Your task to perform on an android device: Open accessibility settings Image 0: 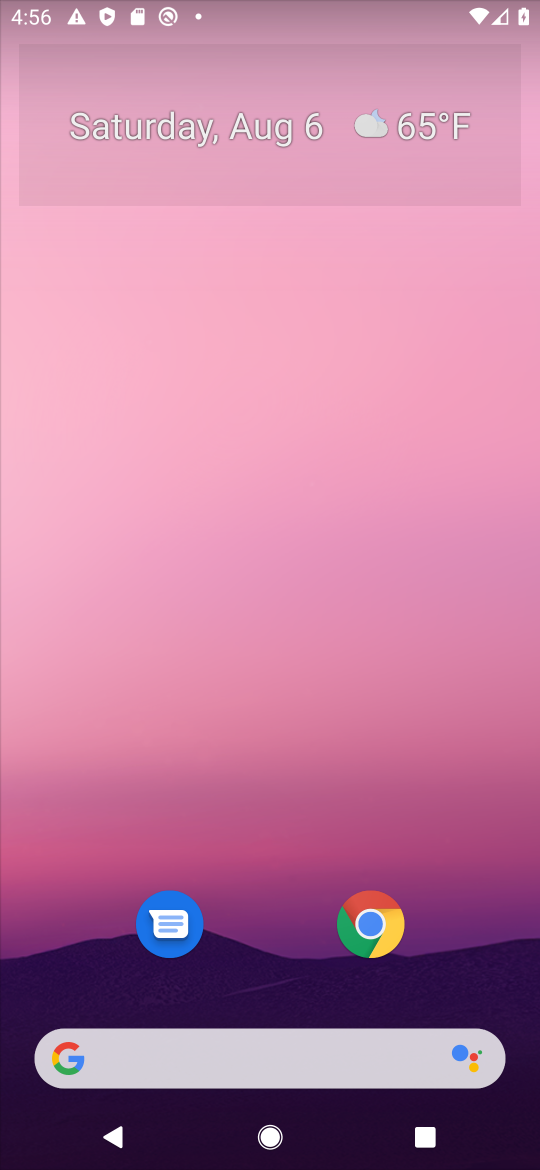
Step 0: drag from (151, 1119) to (389, 66)
Your task to perform on an android device: Open accessibility settings Image 1: 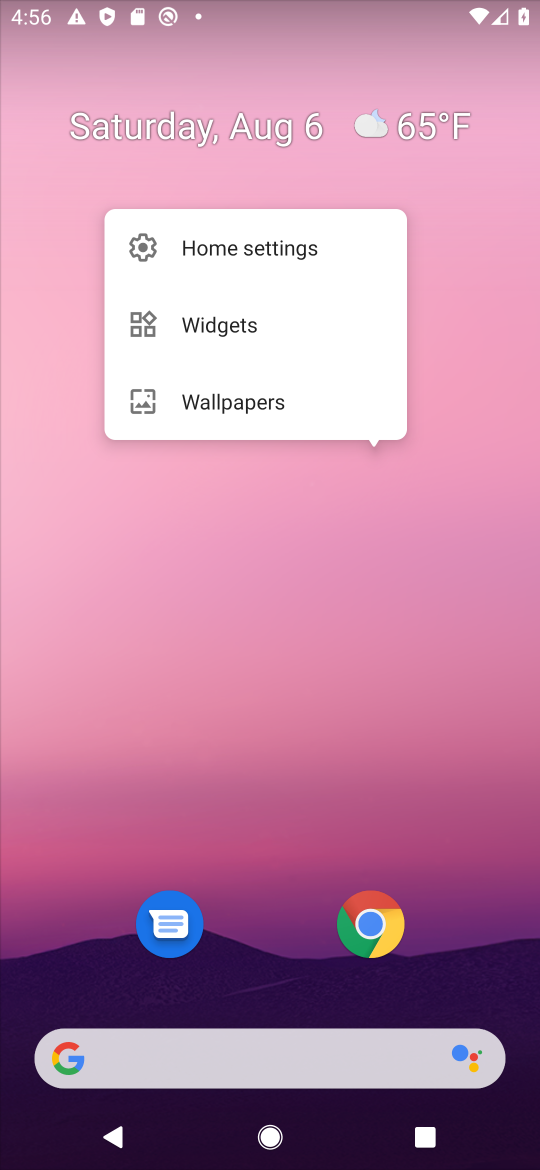
Step 1: drag from (351, 1131) to (405, 297)
Your task to perform on an android device: Open accessibility settings Image 2: 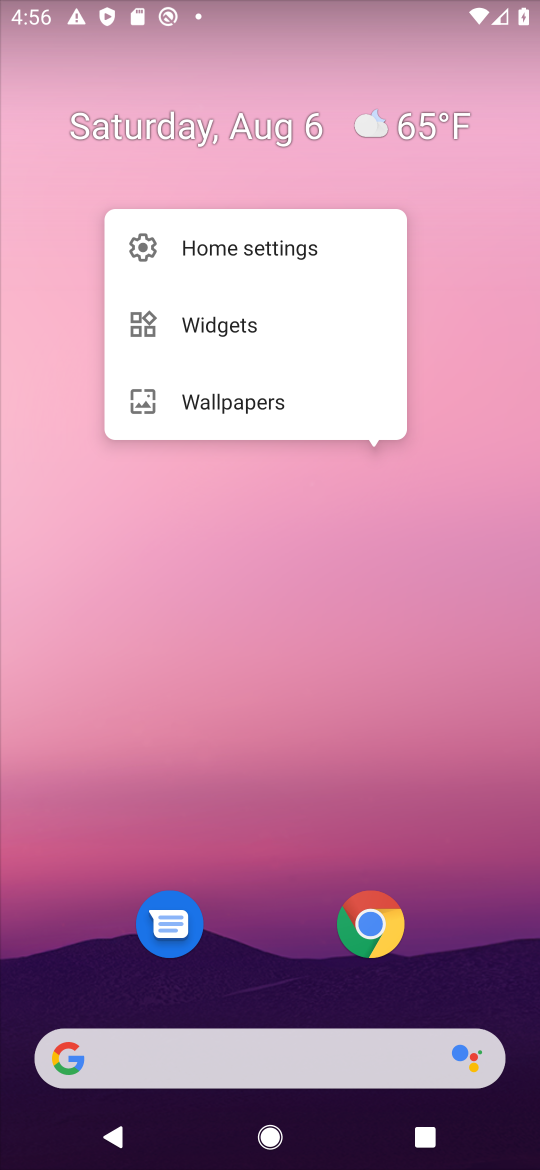
Step 2: press home button
Your task to perform on an android device: Open accessibility settings Image 3: 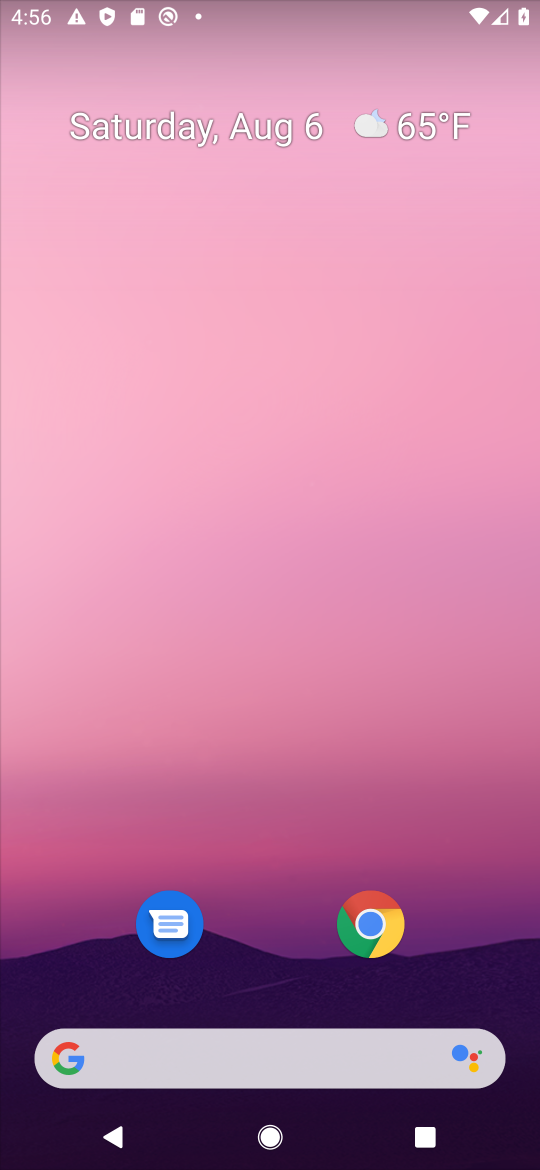
Step 3: drag from (200, 1139) to (282, 0)
Your task to perform on an android device: Open accessibility settings Image 4: 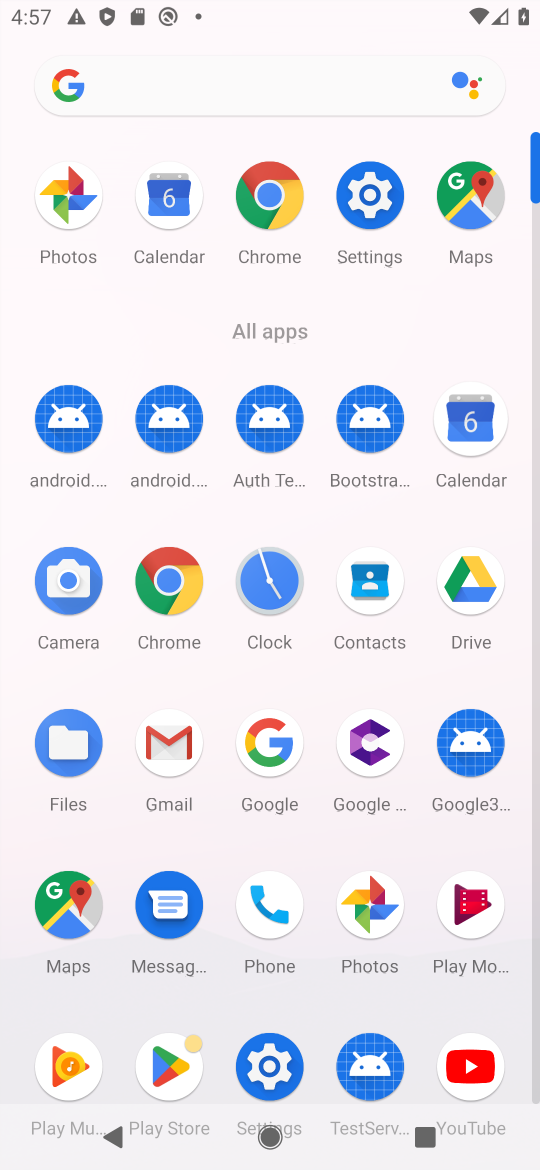
Step 4: click (374, 216)
Your task to perform on an android device: Open accessibility settings Image 5: 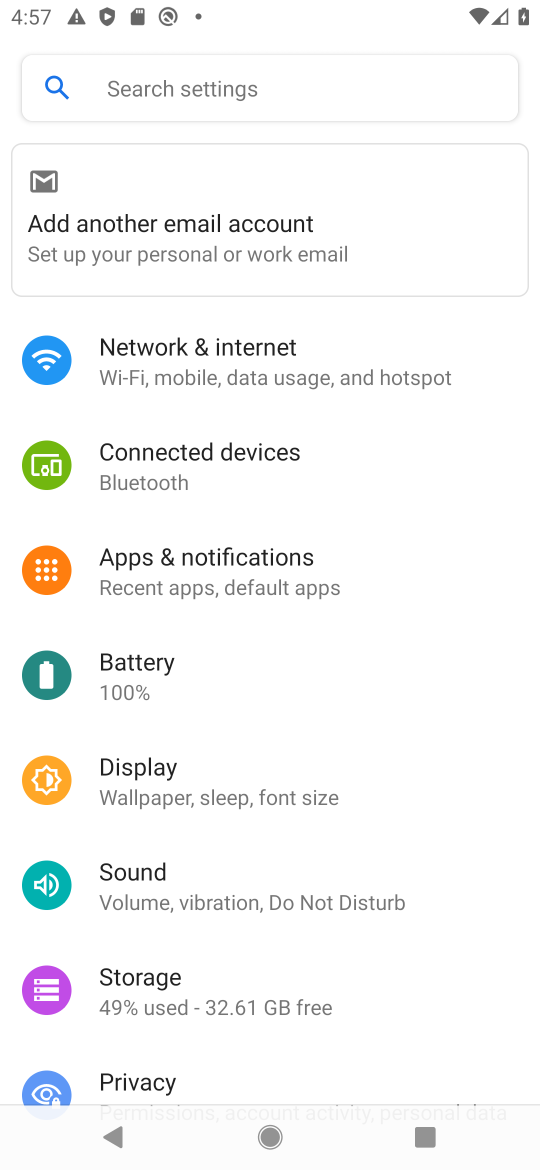
Step 5: drag from (379, 920) to (226, 17)
Your task to perform on an android device: Open accessibility settings Image 6: 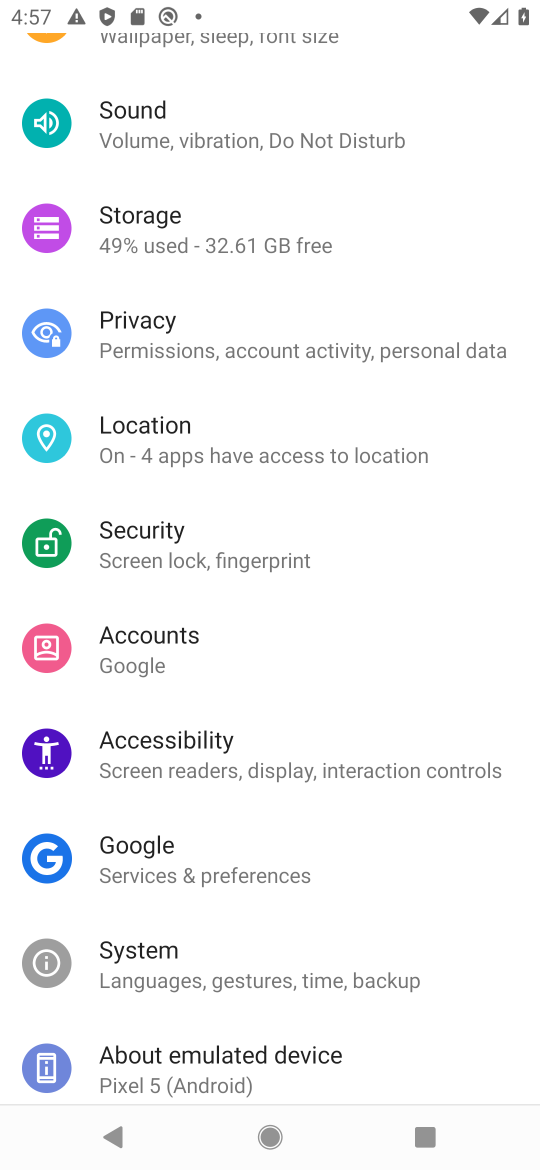
Step 6: click (225, 720)
Your task to perform on an android device: Open accessibility settings Image 7: 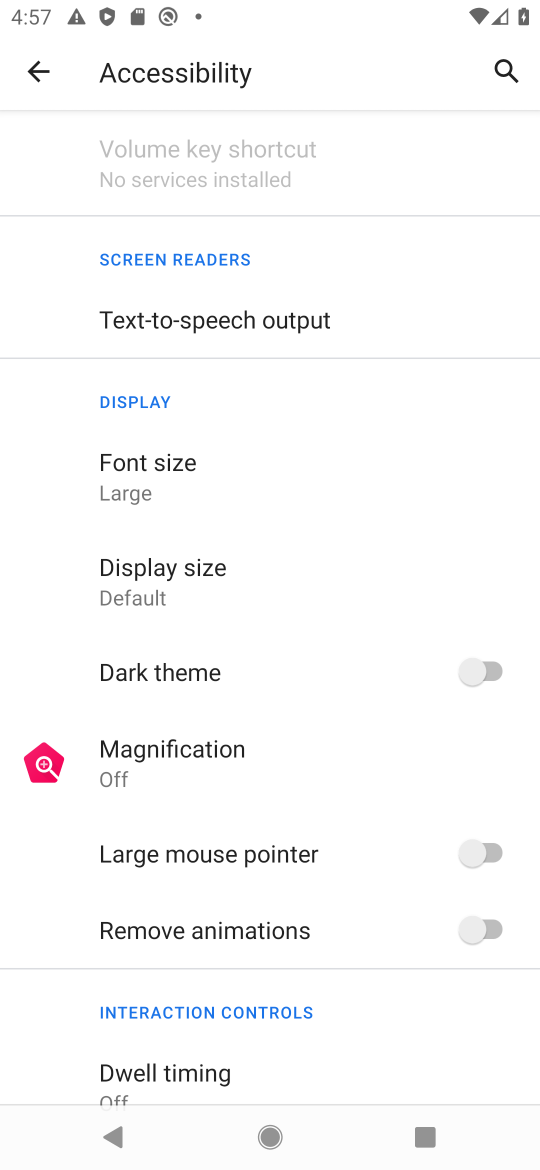
Step 7: task complete